Your task to perform on an android device: turn off location history Image 0: 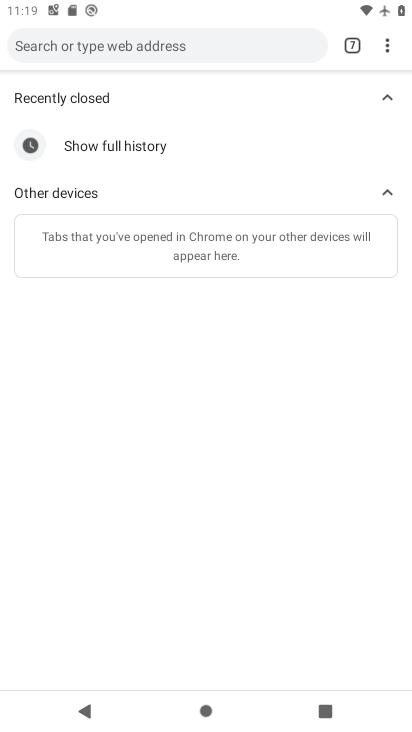
Step 0: press home button
Your task to perform on an android device: turn off location history Image 1: 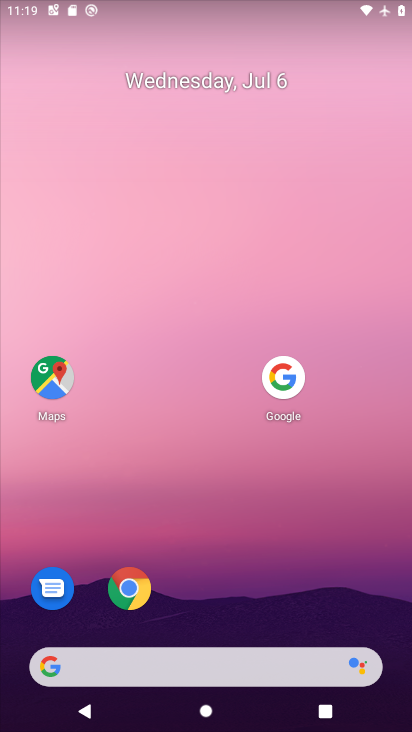
Step 1: drag from (175, 663) to (294, 40)
Your task to perform on an android device: turn off location history Image 2: 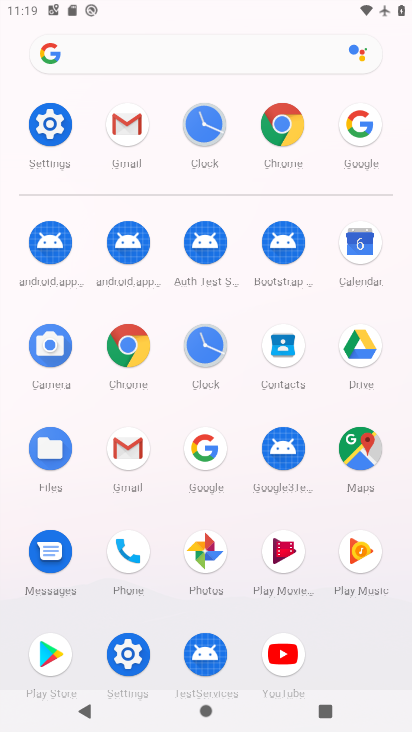
Step 2: click (51, 135)
Your task to perform on an android device: turn off location history Image 3: 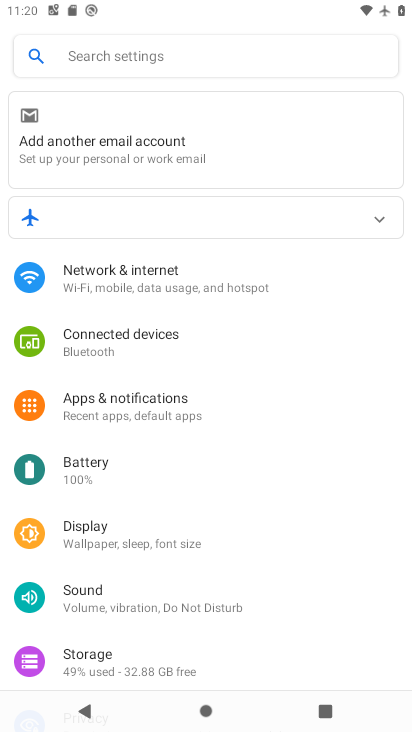
Step 3: drag from (179, 512) to (237, 77)
Your task to perform on an android device: turn off location history Image 4: 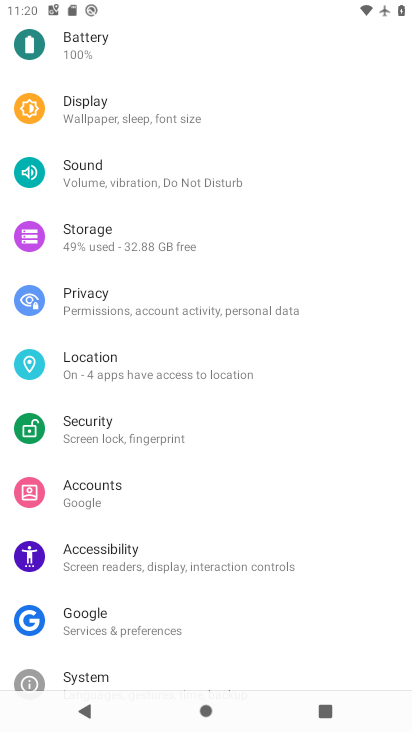
Step 4: click (87, 364)
Your task to perform on an android device: turn off location history Image 5: 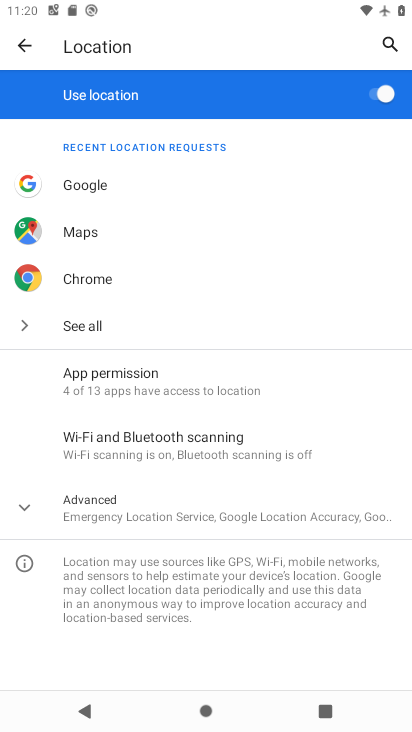
Step 5: click (115, 514)
Your task to perform on an android device: turn off location history Image 6: 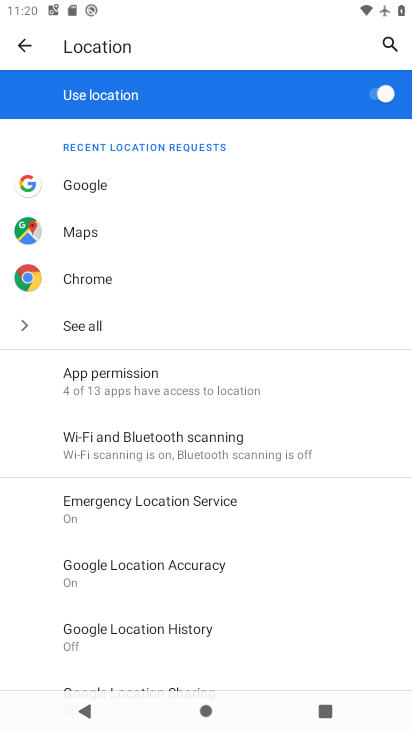
Step 6: drag from (236, 617) to (275, 225)
Your task to perform on an android device: turn off location history Image 7: 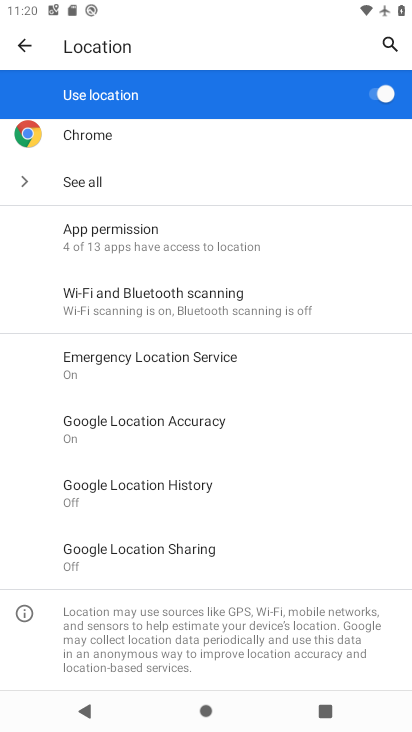
Step 7: click (191, 485)
Your task to perform on an android device: turn off location history Image 8: 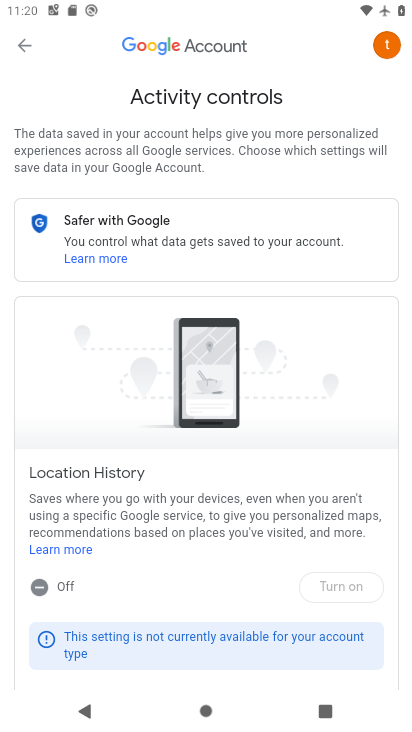
Step 8: drag from (214, 587) to (291, 315)
Your task to perform on an android device: turn off location history Image 9: 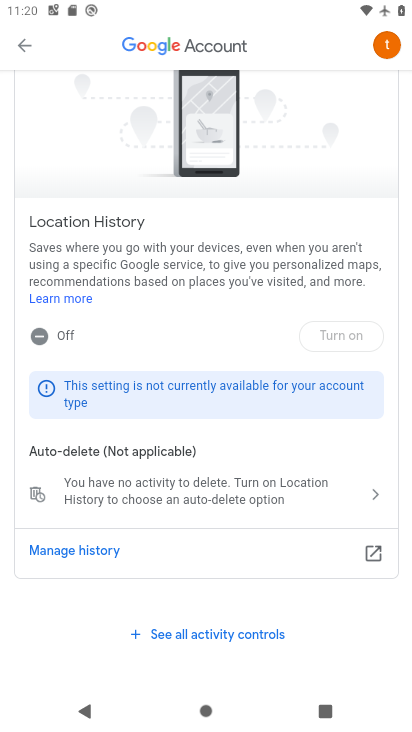
Step 9: click (374, 552)
Your task to perform on an android device: turn off location history Image 10: 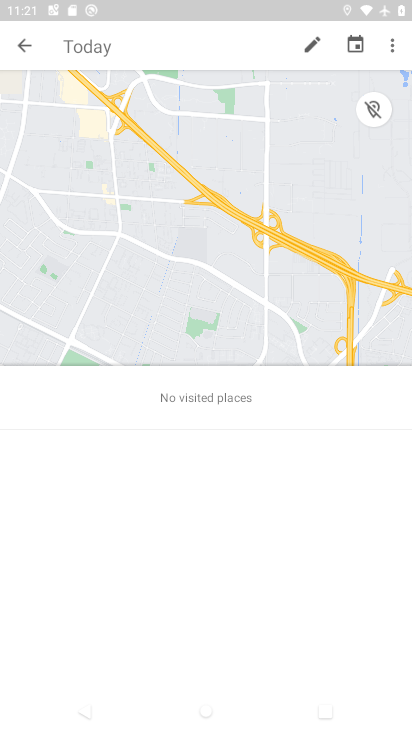
Step 10: click (389, 46)
Your task to perform on an android device: turn off location history Image 11: 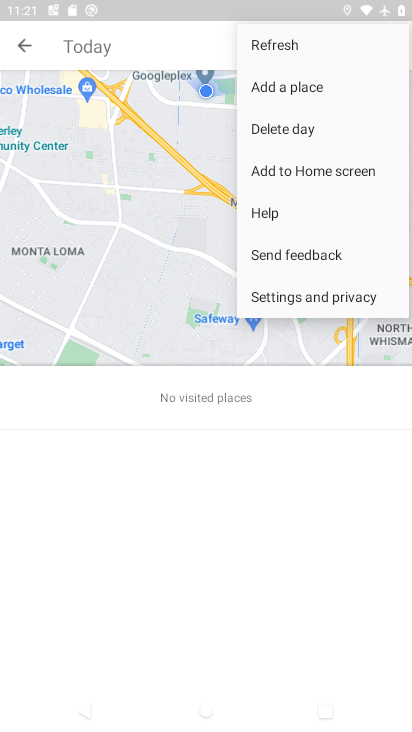
Step 11: click (291, 296)
Your task to perform on an android device: turn off location history Image 12: 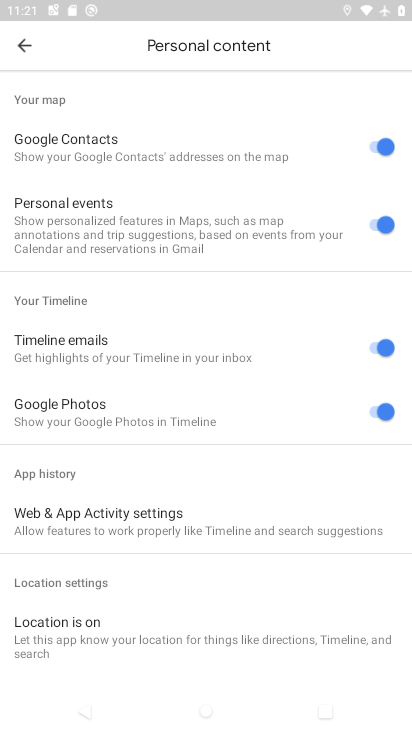
Step 12: drag from (138, 609) to (271, 73)
Your task to perform on an android device: turn off location history Image 13: 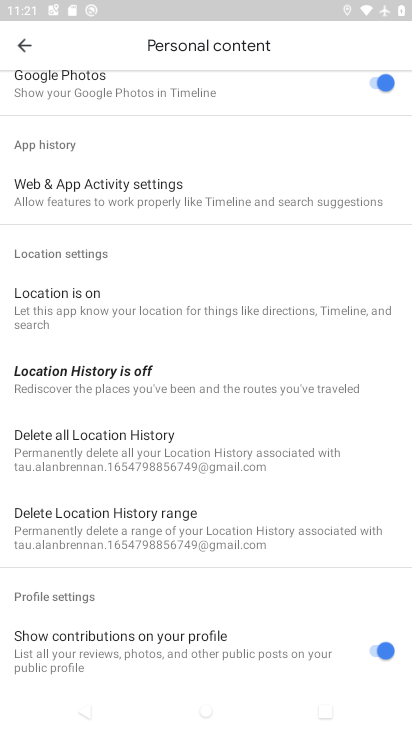
Step 13: click (136, 384)
Your task to perform on an android device: turn off location history Image 14: 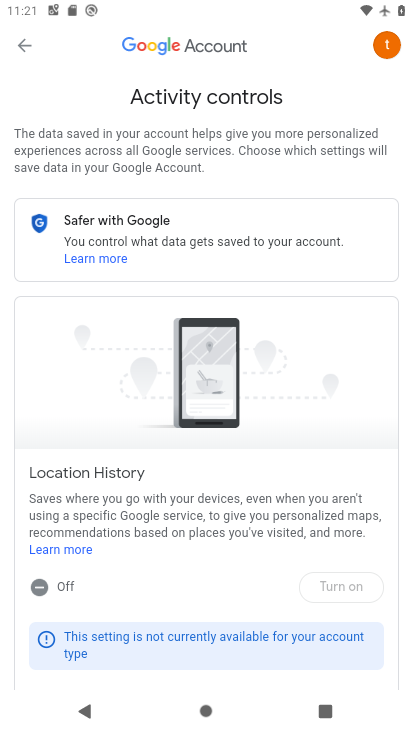
Step 14: click (59, 586)
Your task to perform on an android device: turn off location history Image 15: 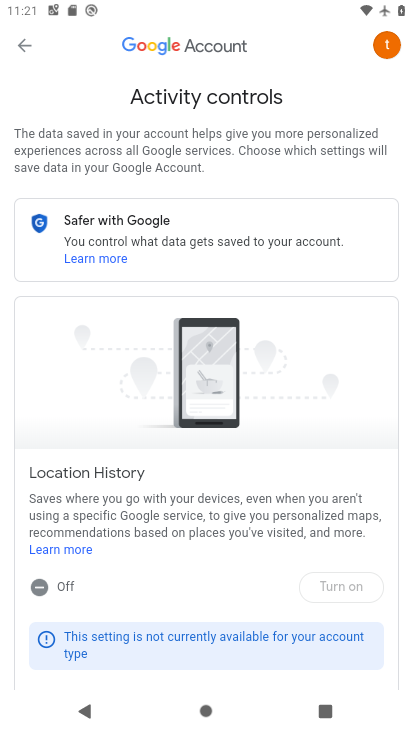
Step 15: task complete